Your task to perform on an android device: Open network settings Image 0: 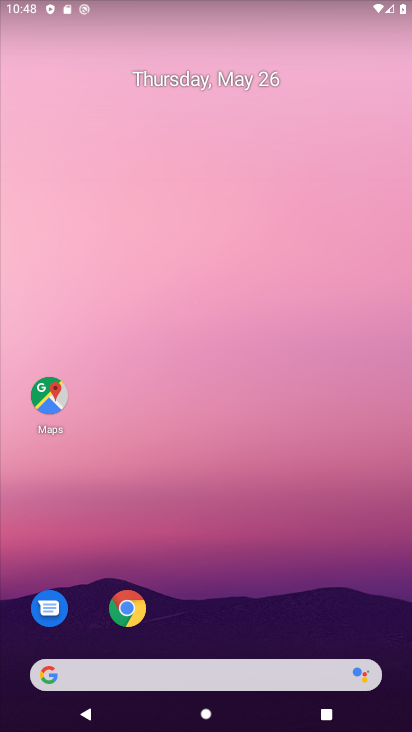
Step 0: drag from (289, 585) to (336, 64)
Your task to perform on an android device: Open network settings Image 1: 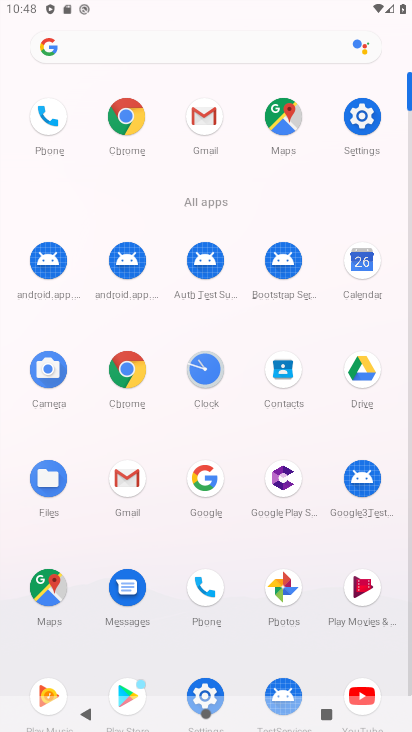
Step 1: click (368, 128)
Your task to perform on an android device: Open network settings Image 2: 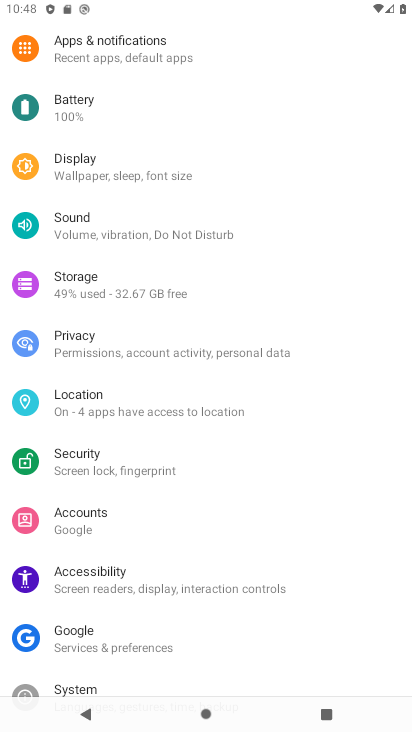
Step 2: drag from (207, 82) to (215, 649)
Your task to perform on an android device: Open network settings Image 3: 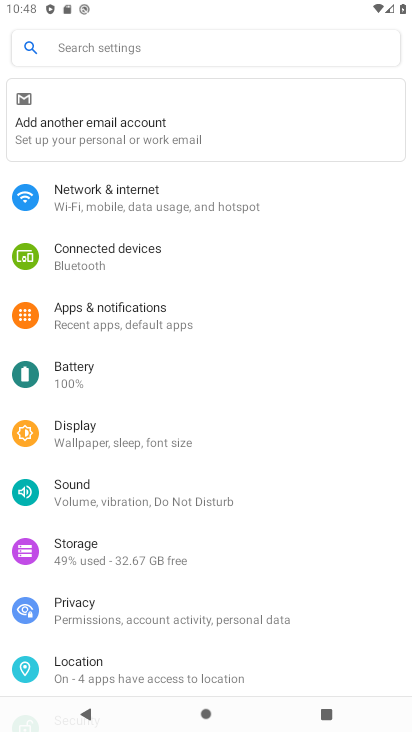
Step 3: click (174, 204)
Your task to perform on an android device: Open network settings Image 4: 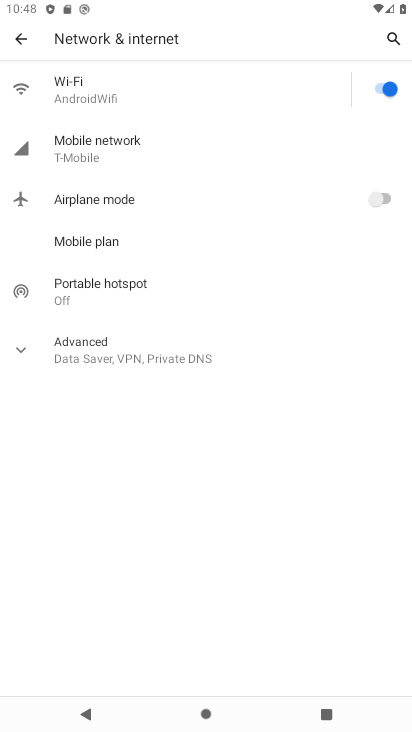
Step 4: click (151, 327)
Your task to perform on an android device: Open network settings Image 5: 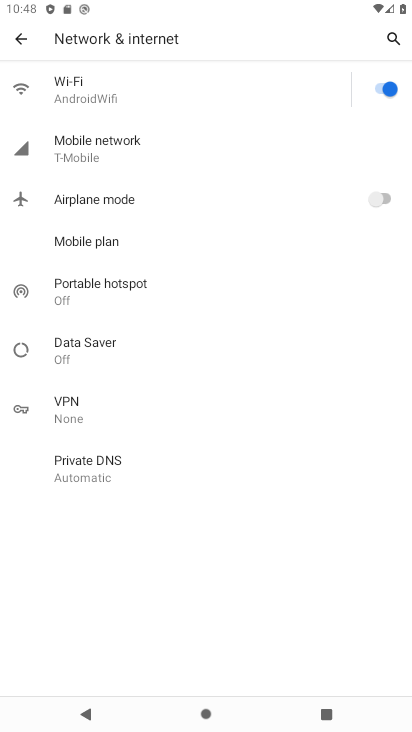
Step 5: task complete